Your task to perform on an android device: toggle wifi Image 0: 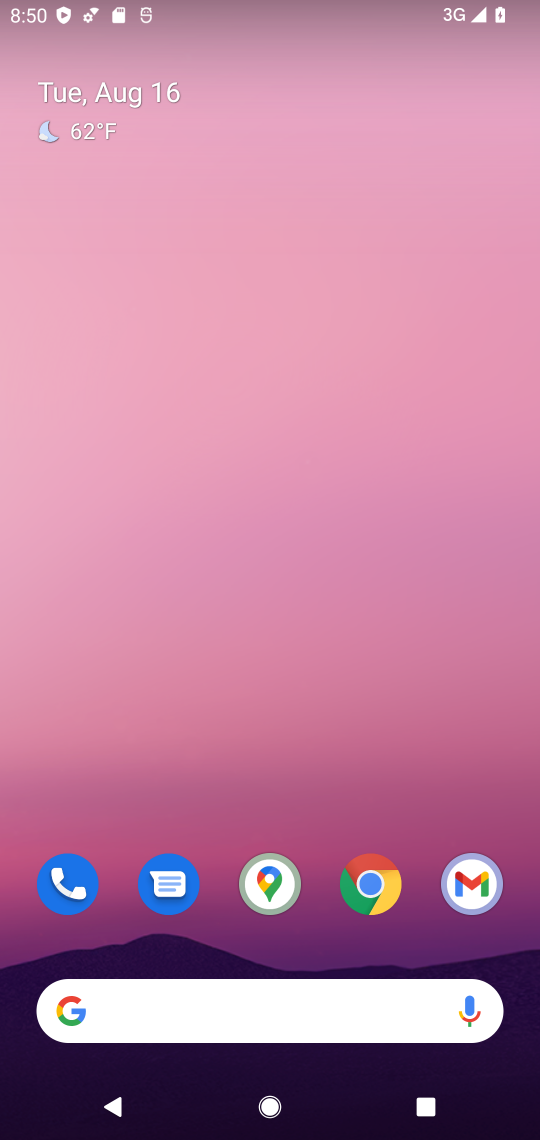
Step 0: drag from (422, 942) to (409, 242)
Your task to perform on an android device: toggle wifi Image 1: 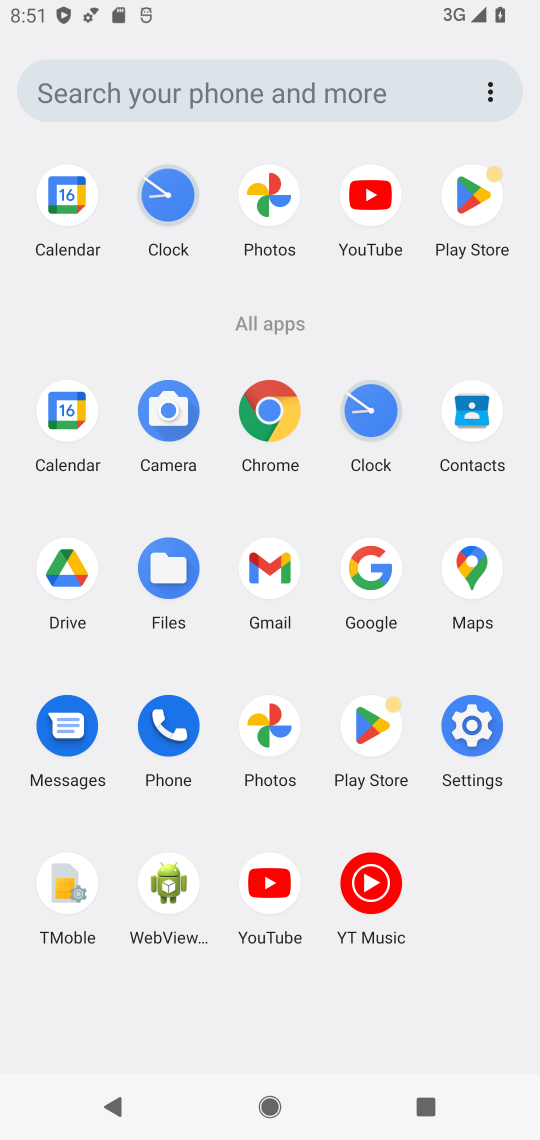
Step 1: click (472, 725)
Your task to perform on an android device: toggle wifi Image 2: 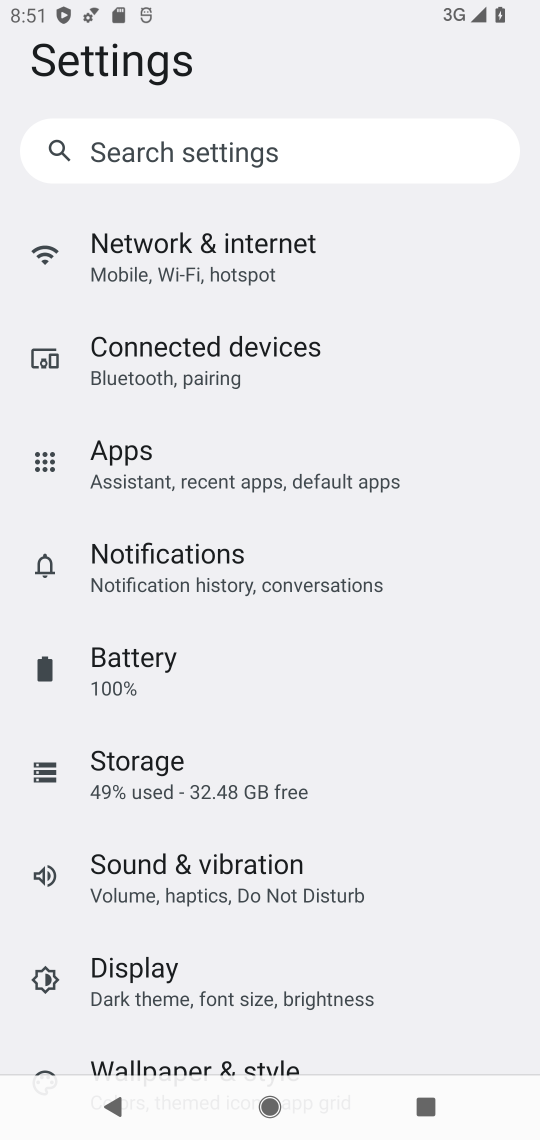
Step 2: click (168, 258)
Your task to perform on an android device: toggle wifi Image 3: 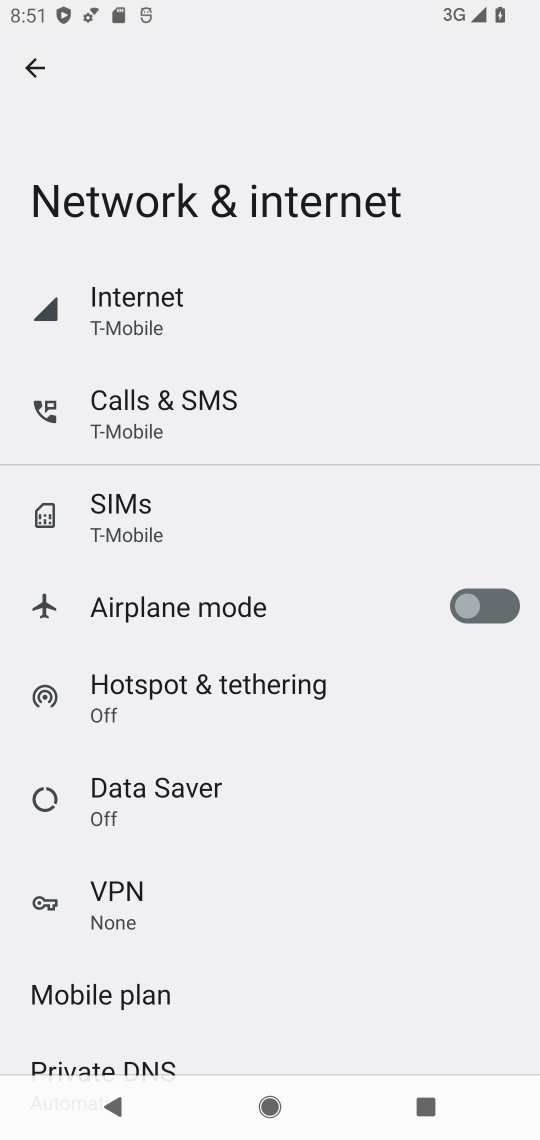
Step 3: click (141, 301)
Your task to perform on an android device: toggle wifi Image 4: 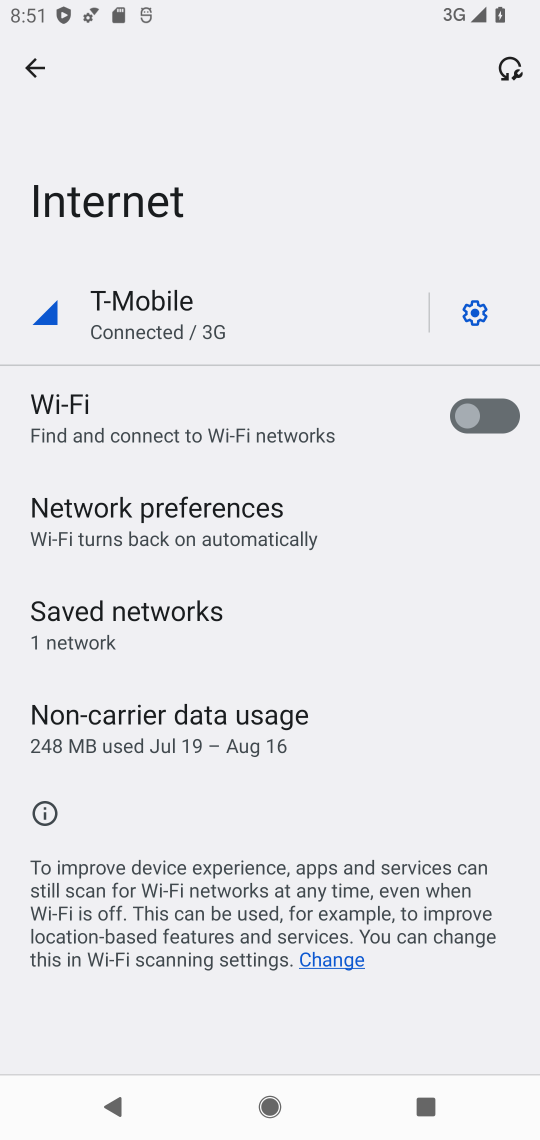
Step 4: click (507, 402)
Your task to perform on an android device: toggle wifi Image 5: 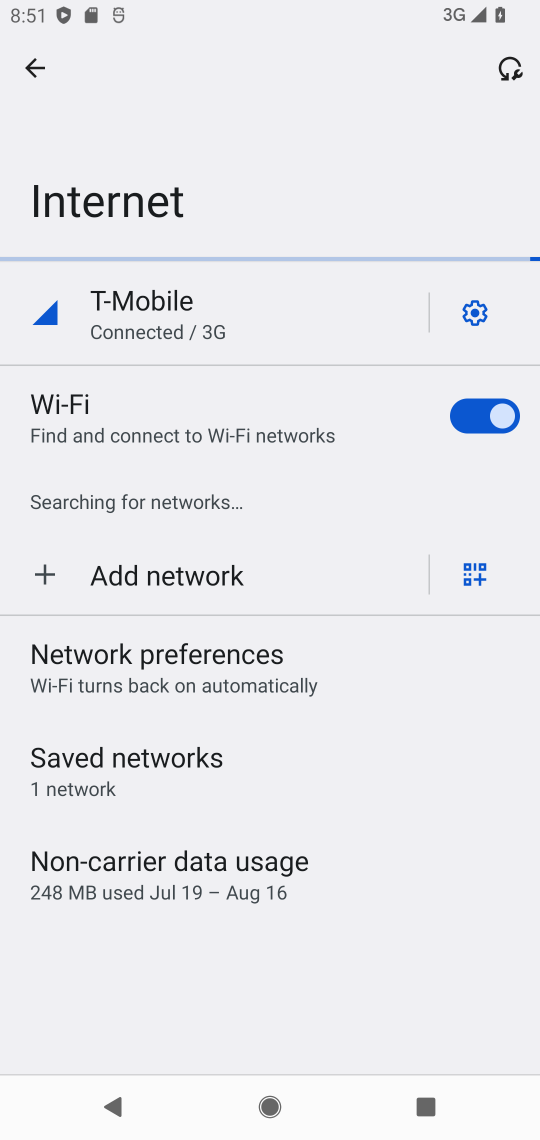
Step 5: task complete